Your task to perform on an android device: Open accessibility settings Image 0: 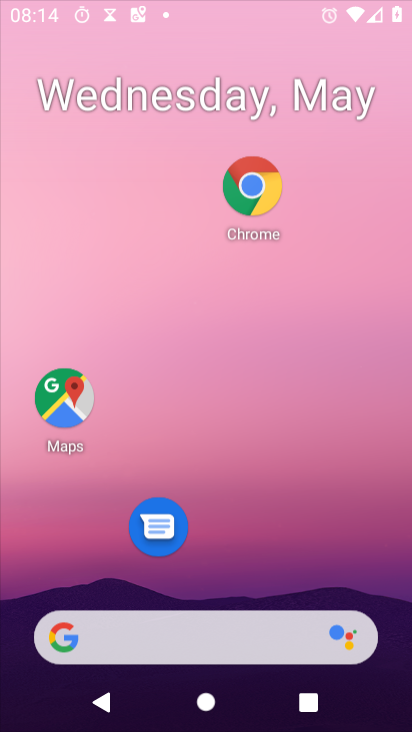
Step 0: click (251, 200)
Your task to perform on an android device: Open accessibility settings Image 1: 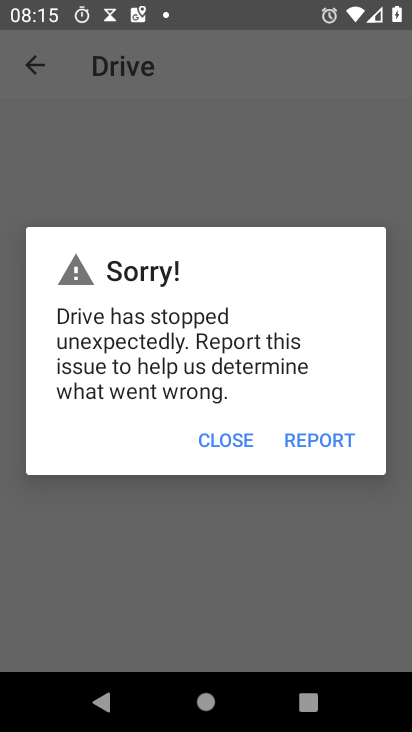
Step 1: press home button
Your task to perform on an android device: Open accessibility settings Image 2: 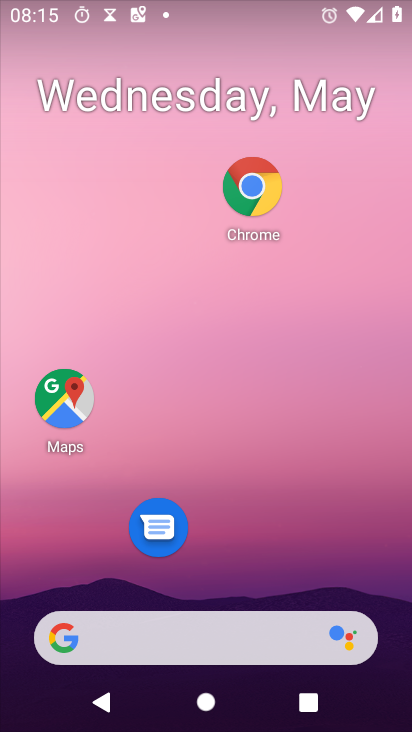
Step 2: drag from (256, 545) to (316, 111)
Your task to perform on an android device: Open accessibility settings Image 3: 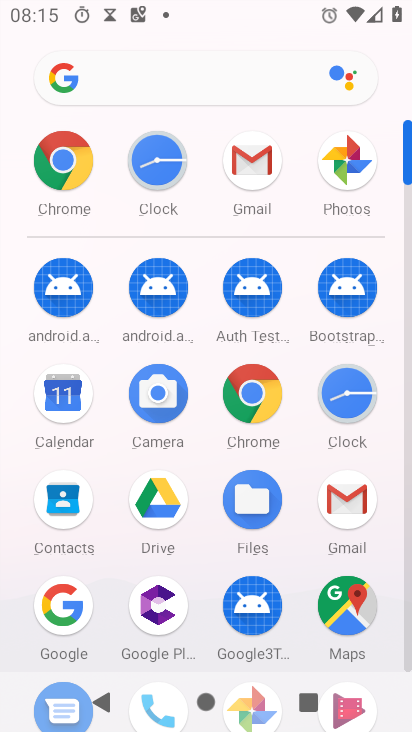
Step 3: drag from (290, 278) to (308, 24)
Your task to perform on an android device: Open accessibility settings Image 4: 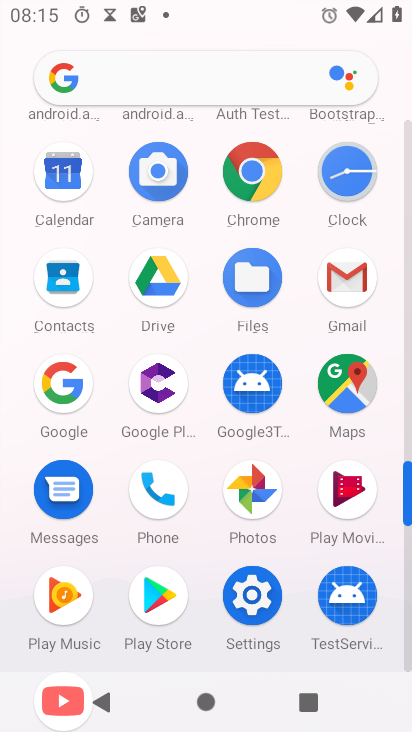
Step 4: click (248, 595)
Your task to perform on an android device: Open accessibility settings Image 5: 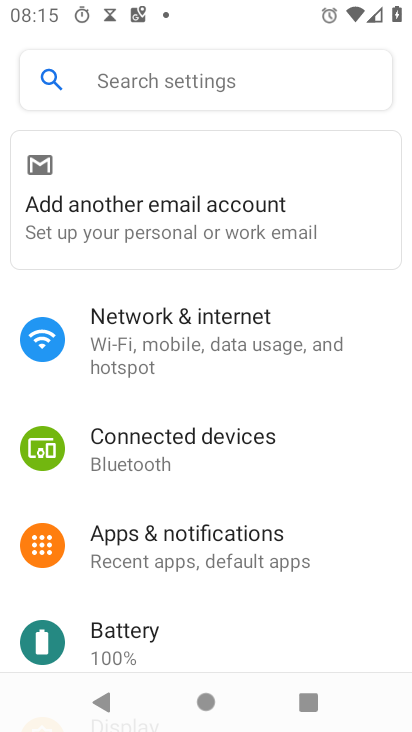
Step 5: drag from (287, 591) to (303, 146)
Your task to perform on an android device: Open accessibility settings Image 6: 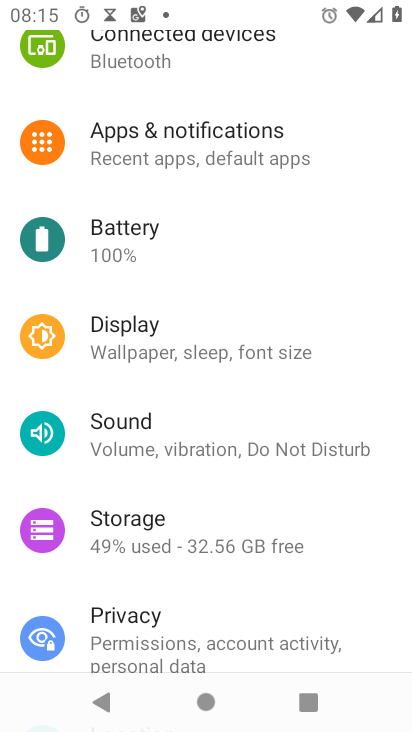
Step 6: drag from (282, 579) to (307, 296)
Your task to perform on an android device: Open accessibility settings Image 7: 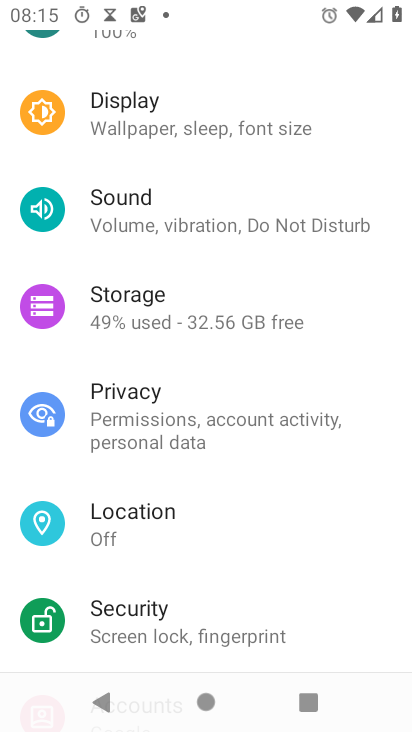
Step 7: drag from (344, 623) to (350, 303)
Your task to perform on an android device: Open accessibility settings Image 8: 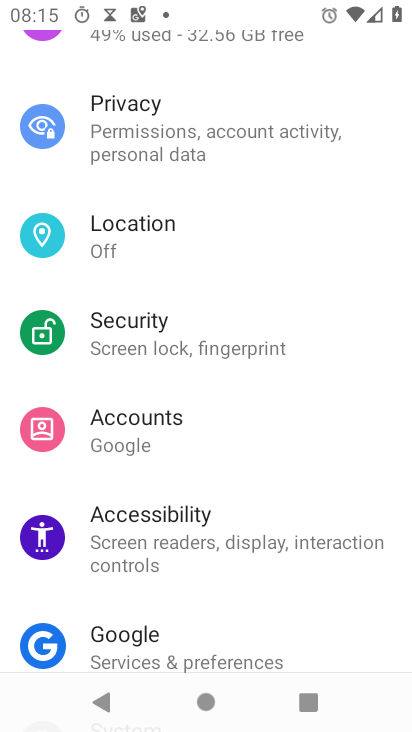
Step 8: click (135, 518)
Your task to perform on an android device: Open accessibility settings Image 9: 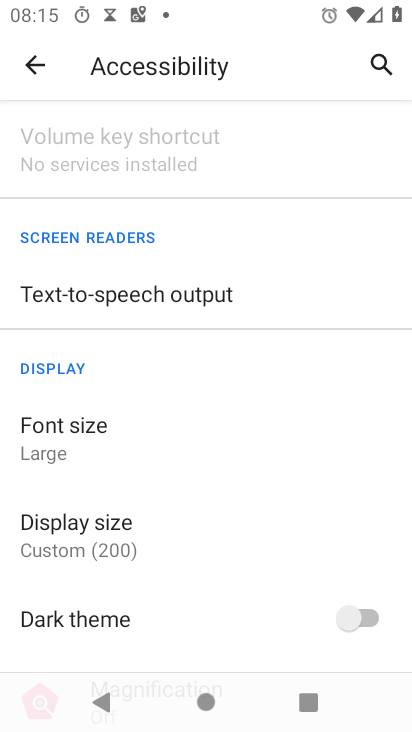
Step 9: task complete